Your task to perform on an android device: set the timer Image 0: 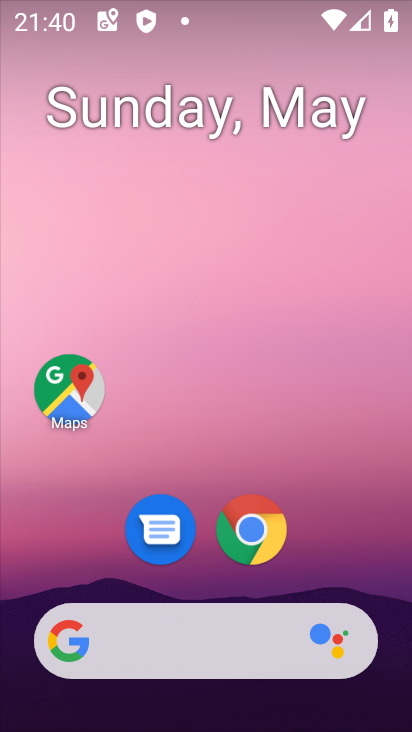
Step 0: drag from (309, 511) to (331, 50)
Your task to perform on an android device: set the timer Image 1: 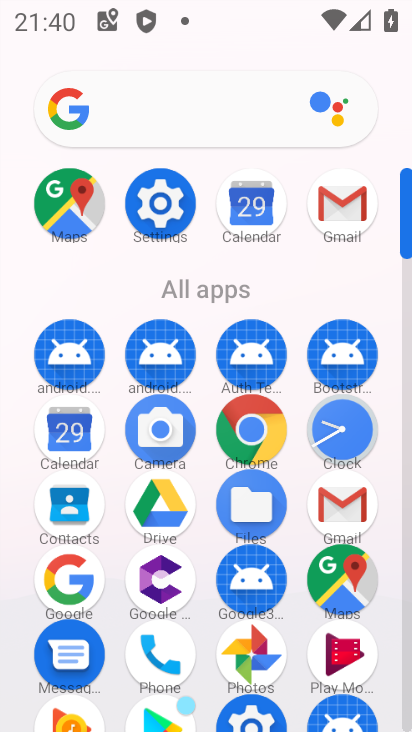
Step 1: click (339, 431)
Your task to perform on an android device: set the timer Image 2: 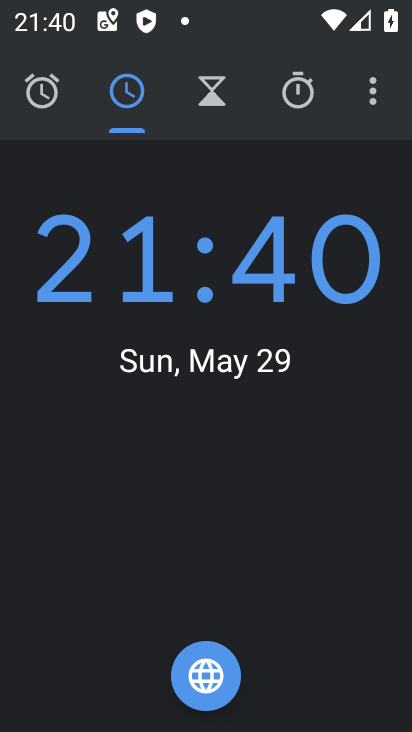
Step 2: click (210, 102)
Your task to perform on an android device: set the timer Image 3: 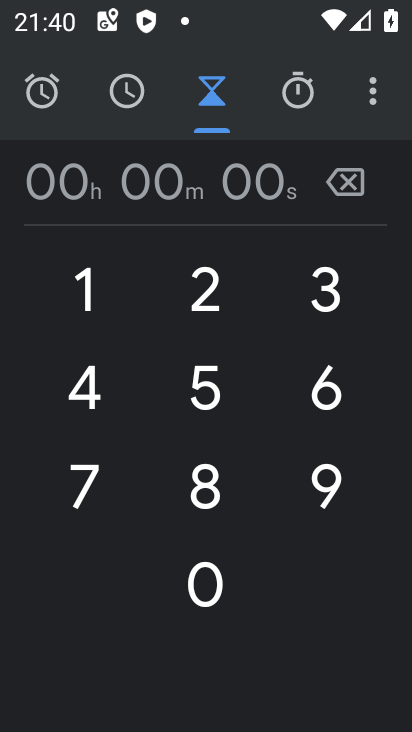
Step 3: click (207, 379)
Your task to perform on an android device: set the timer Image 4: 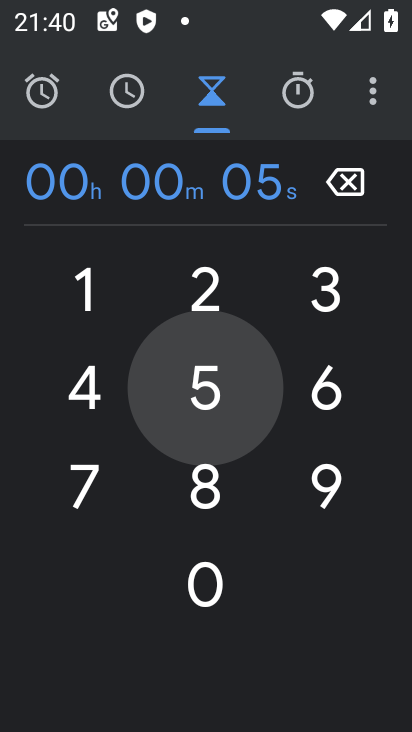
Step 4: click (223, 346)
Your task to perform on an android device: set the timer Image 5: 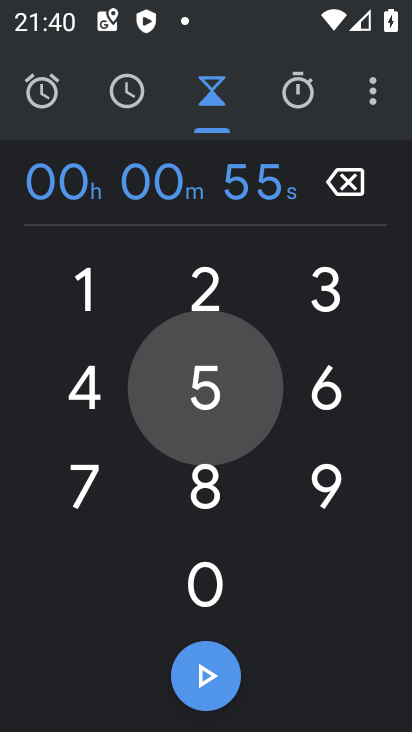
Step 5: click (276, 376)
Your task to perform on an android device: set the timer Image 6: 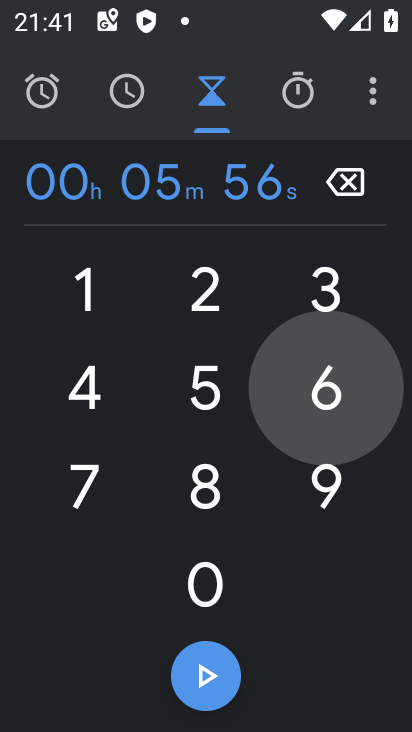
Step 6: click (250, 379)
Your task to perform on an android device: set the timer Image 7: 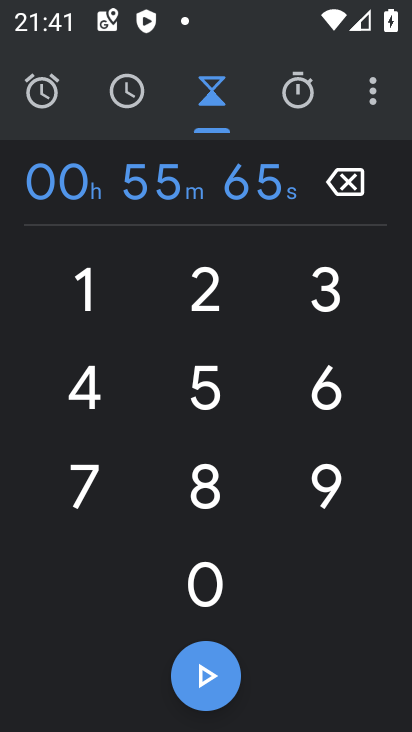
Step 7: click (285, 359)
Your task to perform on an android device: set the timer Image 8: 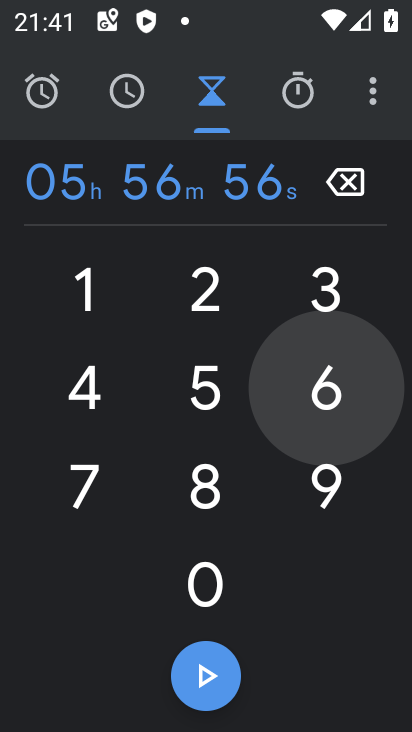
Step 8: click (242, 365)
Your task to perform on an android device: set the timer Image 9: 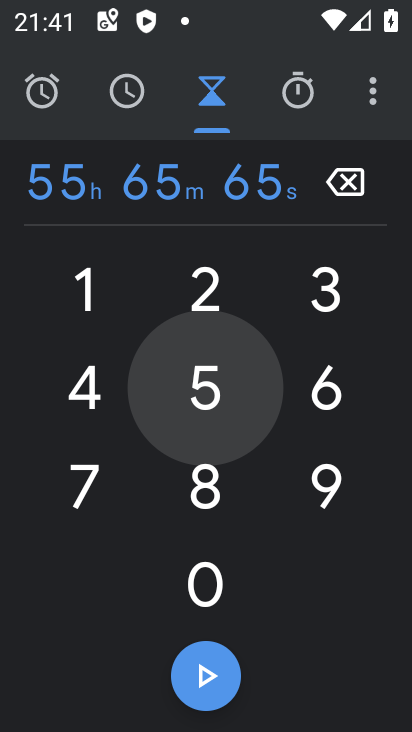
Step 9: click (321, 361)
Your task to perform on an android device: set the timer Image 10: 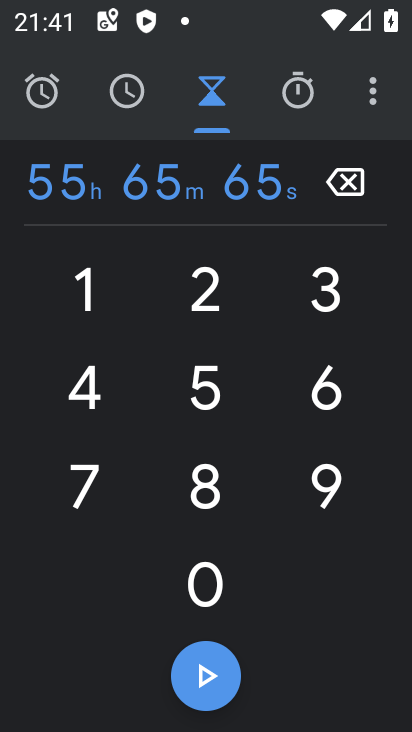
Step 10: click (197, 682)
Your task to perform on an android device: set the timer Image 11: 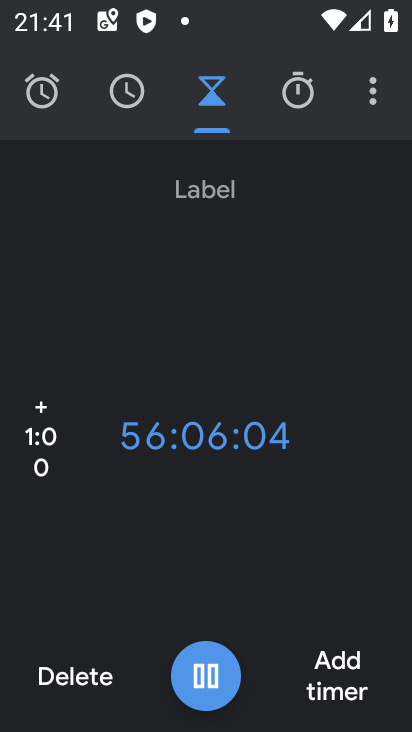
Step 11: task complete